Your task to perform on an android device: open chrome and create a bookmark for the current page Image 0: 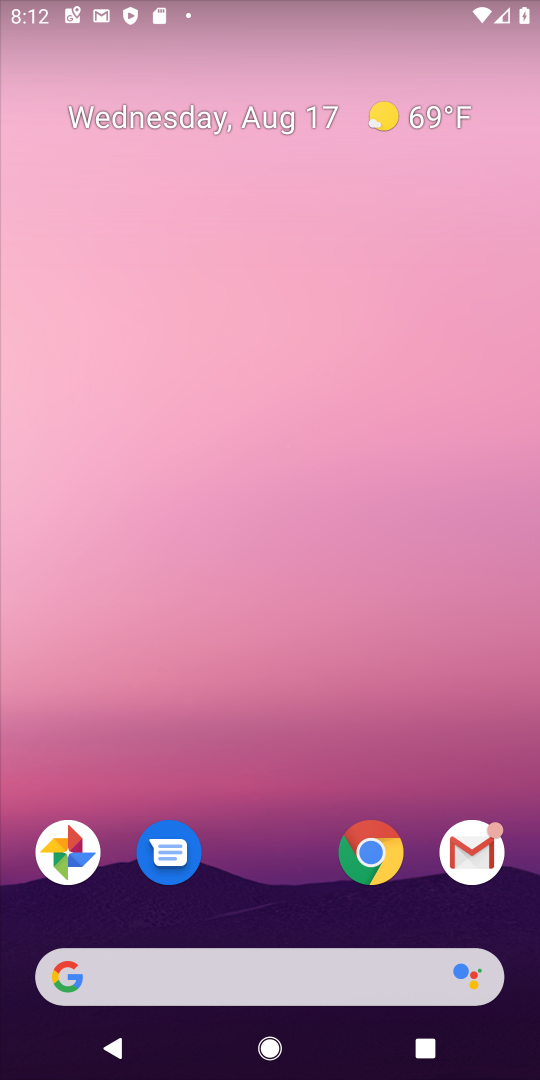
Step 0: click (369, 857)
Your task to perform on an android device: open chrome and create a bookmark for the current page Image 1: 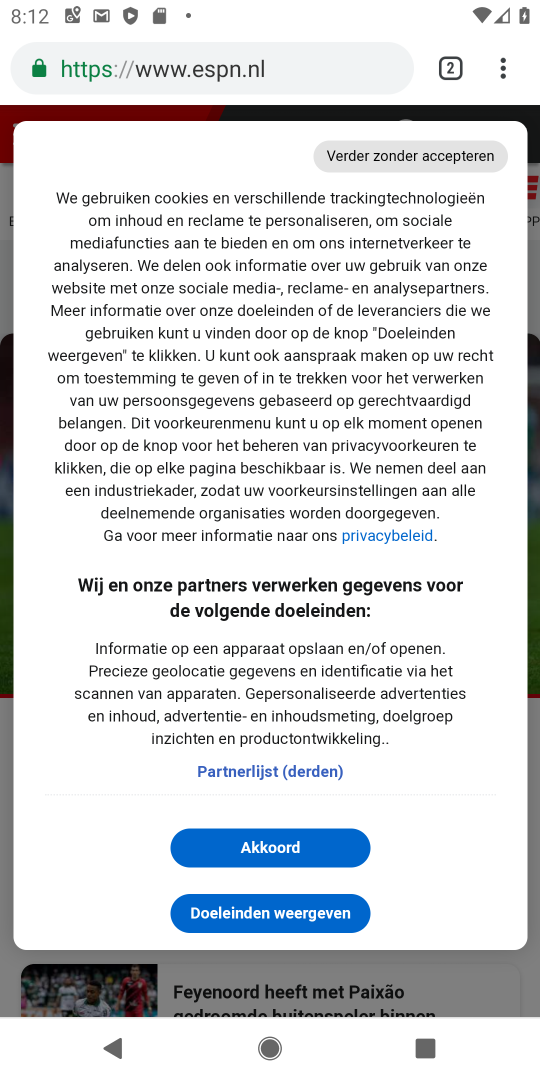
Step 1: click (512, 69)
Your task to perform on an android device: open chrome and create a bookmark for the current page Image 2: 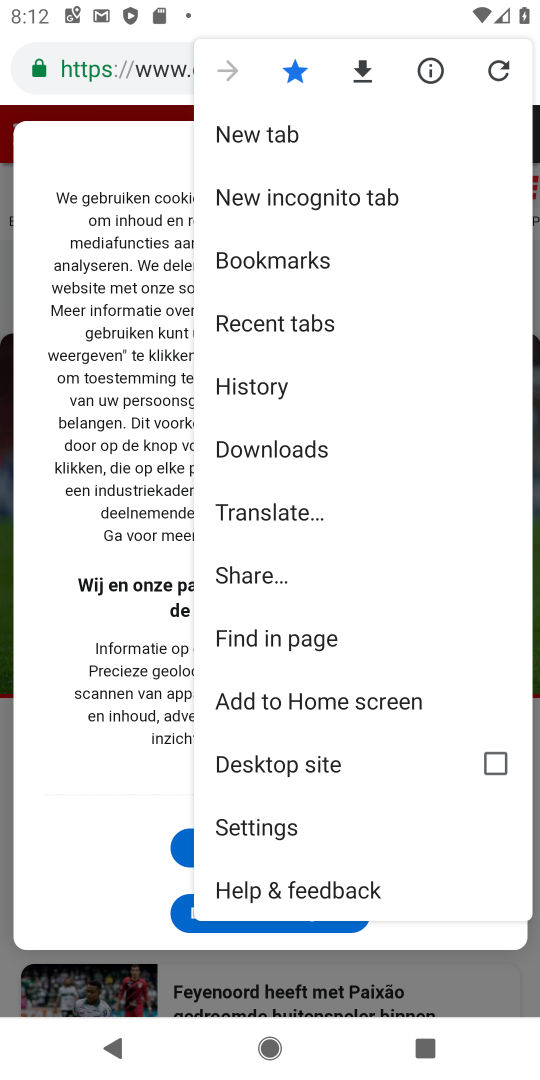
Step 2: task complete